Your task to perform on an android device: delete a single message in the gmail app Image 0: 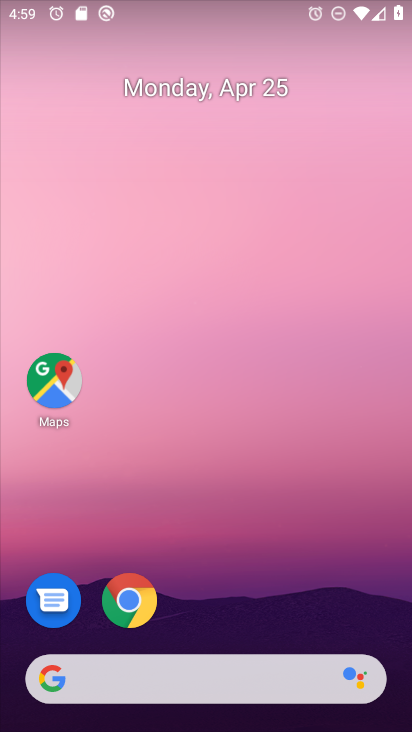
Step 0: drag from (230, 546) to (213, 17)
Your task to perform on an android device: delete a single message in the gmail app Image 1: 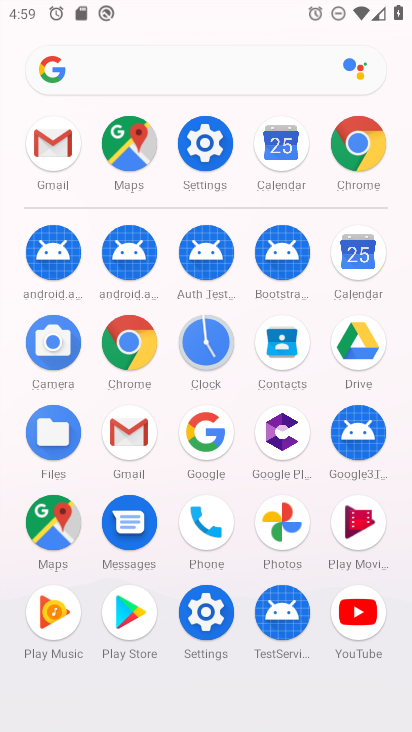
Step 1: click (20, 266)
Your task to perform on an android device: delete a single message in the gmail app Image 2: 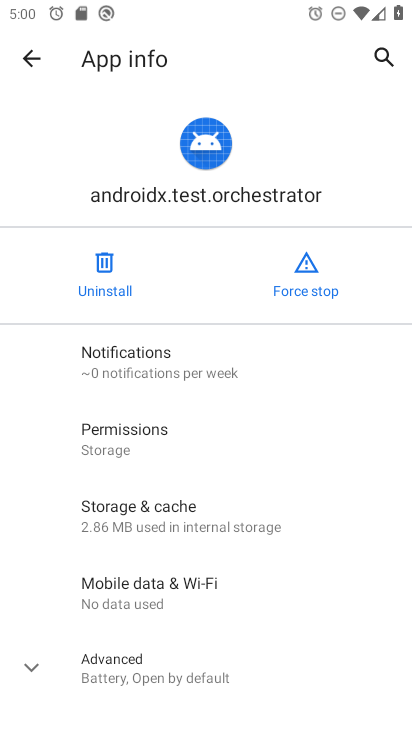
Step 2: click (37, 56)
Your task to perform on an android device: delete a single message in the gmail app Image 3: 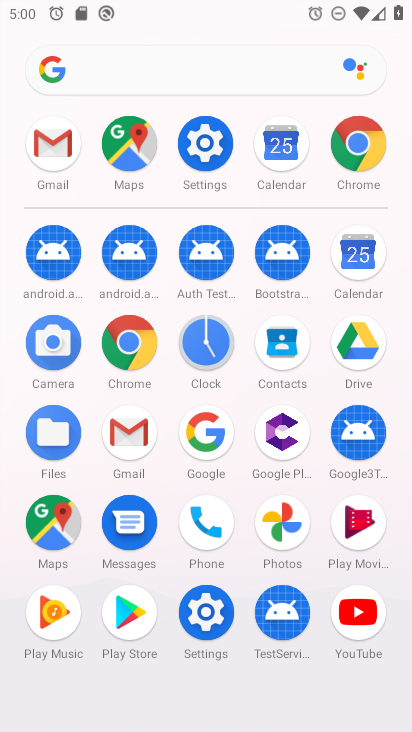
Step 3: click (53, 143)
Your task to perform on an android device: delete a single message in the gmail app Image 4: 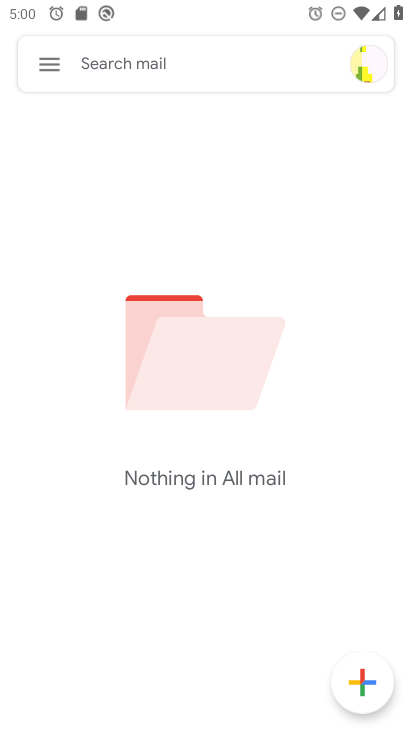
Step 4: click (44, 46)
Your task to perform on an android device: delete a single message in the gmail app Image 5: 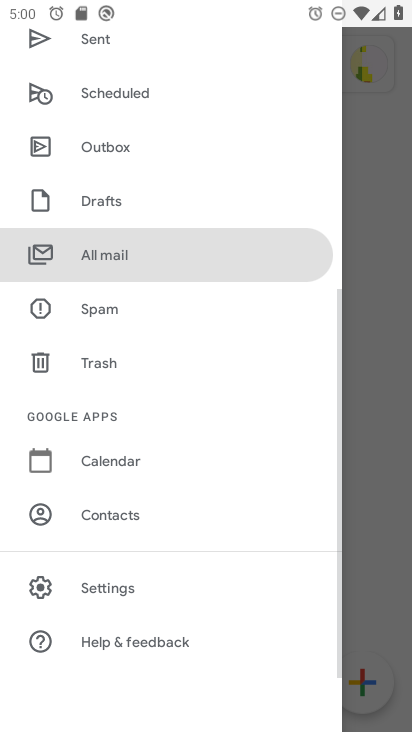
Step 5: click (144, 254)
Your task to perform on an android device: delete a single message in the gmail app Image 6: 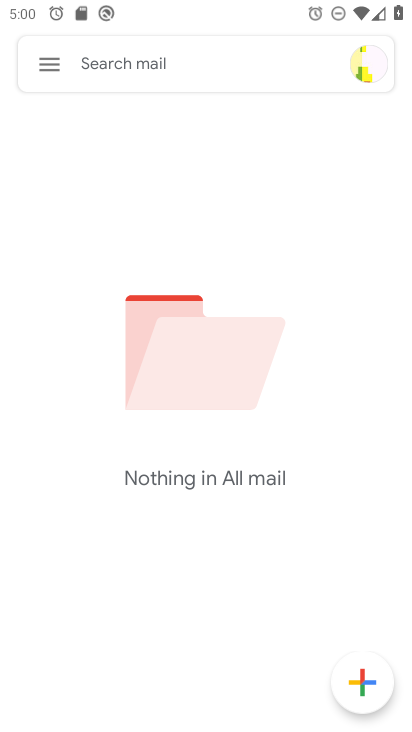
Step 6: click (229, 568)
Your task to perform on an android device: delete a single message in the gmail app Image 7: 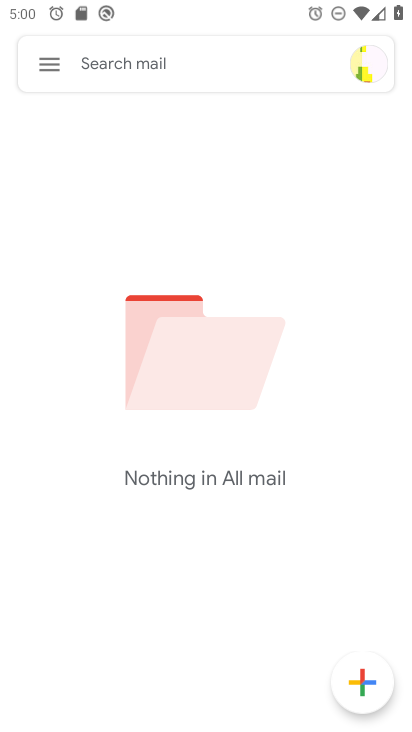
Step 7: task complete